Your task to perform on an android device: see sites visited before in the chrome app Image 0: 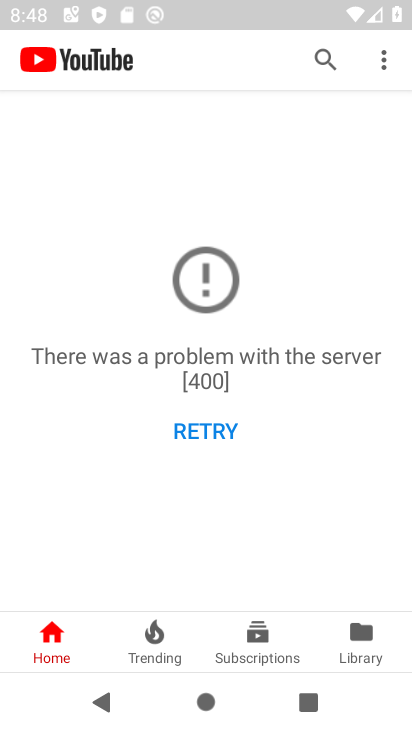
Step 0: press home button
Your task to perform on an android device: see sites visited before in the chrome app Image 1: 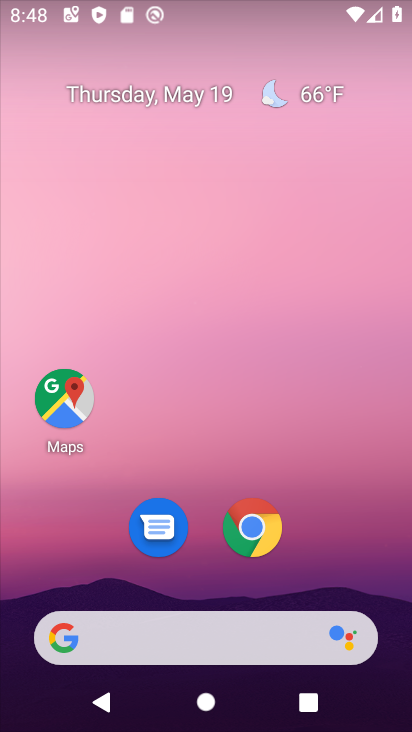
Step 1: drag from (219, 576) to (235, 148)
Your task to perform on an android device: see sites visited before in the chrome app Image 2: 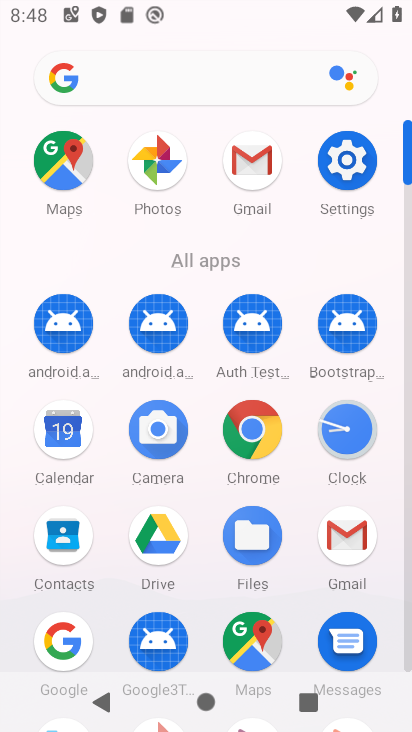
Step 2: click (251, 436)
Your task to perform on an android device: see sites visited before in the chrome app Image 3: 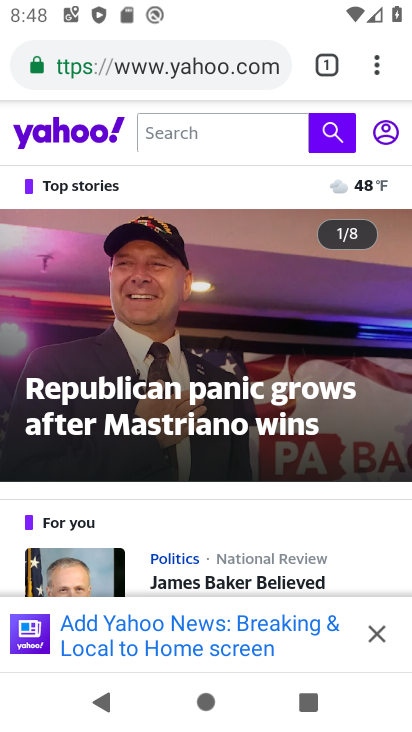
Step 3: click (367, 64)
Your task to perform on an android device: see sites visited before in the chrome app Image 4: 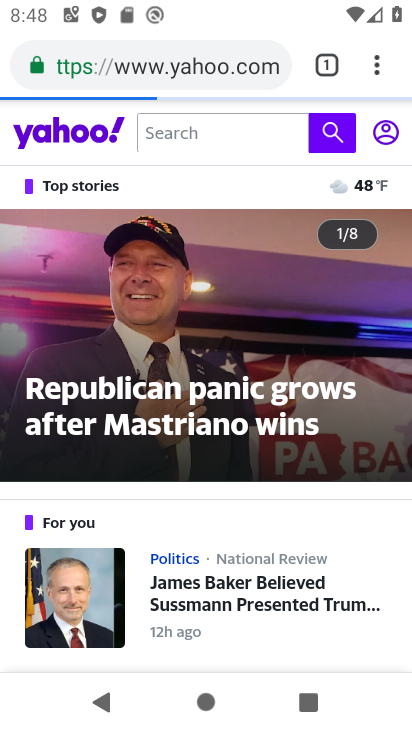
Step 4: click (367, 67)
Your task to perform on an android device: see sites visited before in the chrome app Image 5: 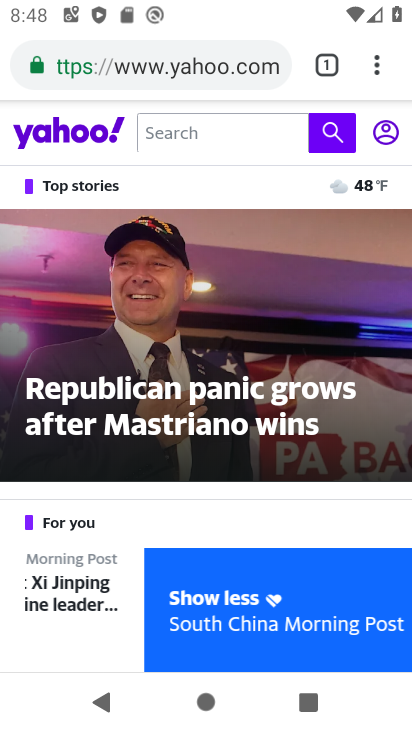
Step 5: click (370, 79)
Your task to perform on an android device: see sites visited before in the chrome app Image 6: 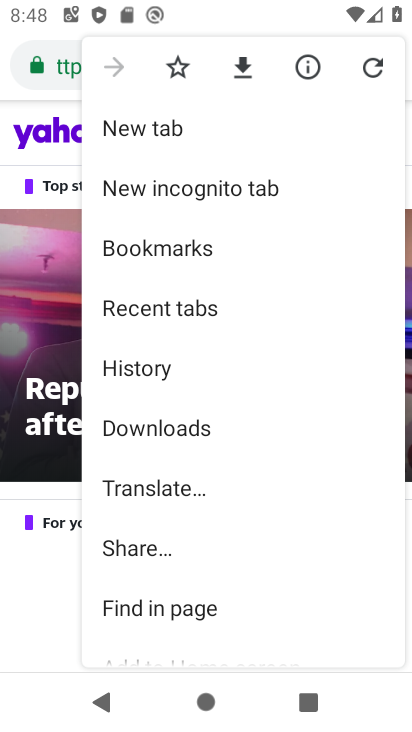
Step 6: click (139, 386)
Your task to perform on an android device: see sites visited before in the chrome app Image 7: 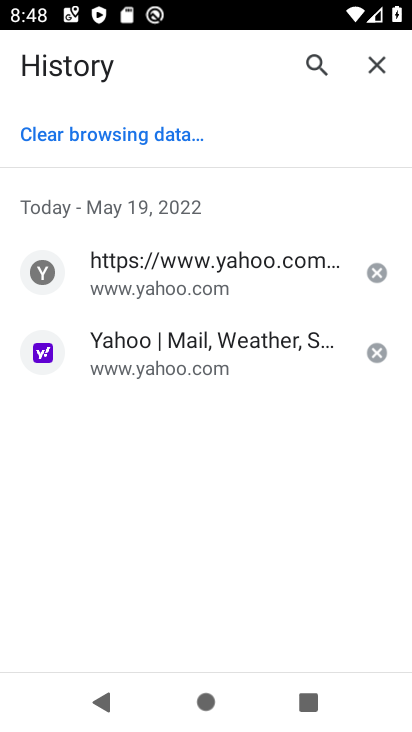
Step 7: task complete